Your task to perform on an android device: toggle wifi Image 0: 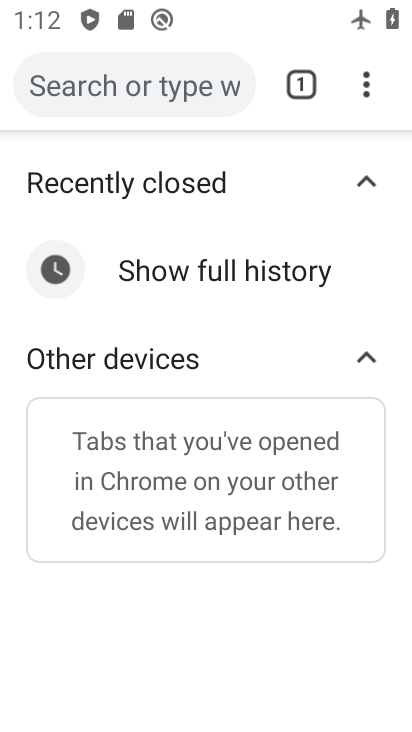
Step 0: press home button
Your task to perform on an android device: toggle wifi Image 1: 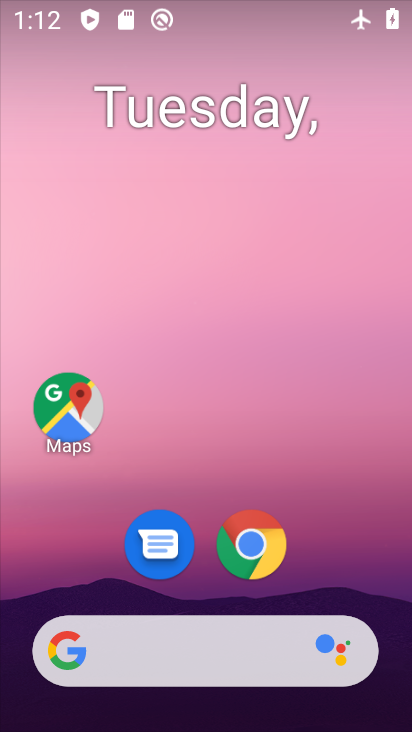
Step 1: drag from (392, 623) to (317, 135)
Your task to perform on an android device: toggle wifi Image 2: 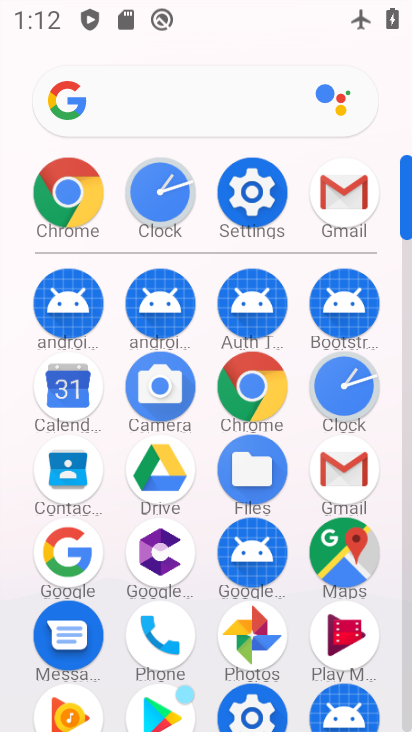
Step 2: click (405, 696)
Your task to perform on an android device: toggle wifi Image 3: 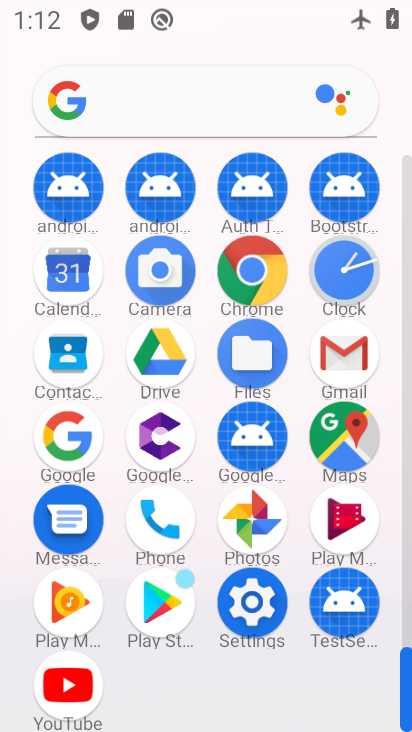
Step 3: click (254, 603)
Your task to perform on an android device: toggle wifi Image 4: 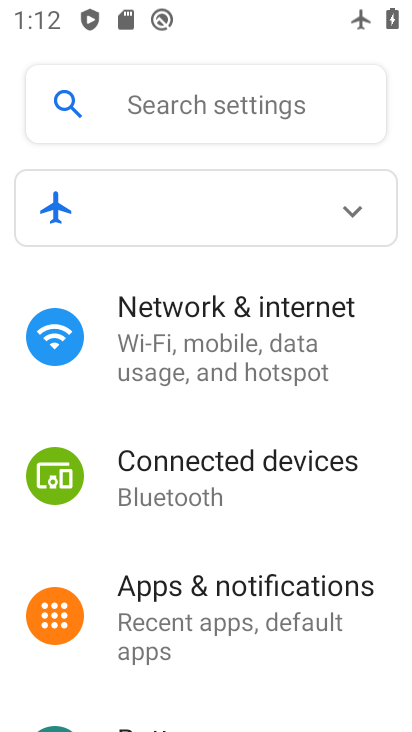
Step 4: click (177, 327)
Your task to perform on an android device: toggle wifi Image 5: 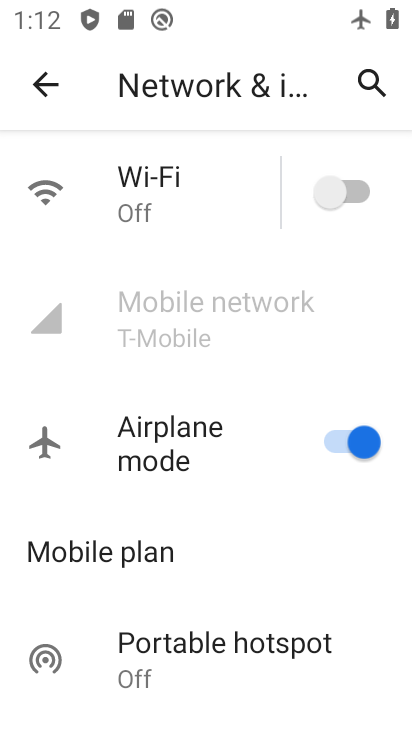
Step 5: click (359, 192)
Your task to perform on an android device: toggle wifi Image 6: 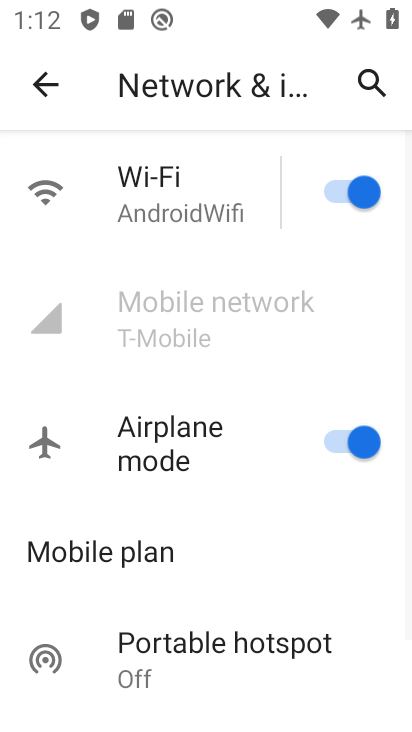
Step 6: task complete